Your task to perform on an android device: change the upload size in google photos Image 0: 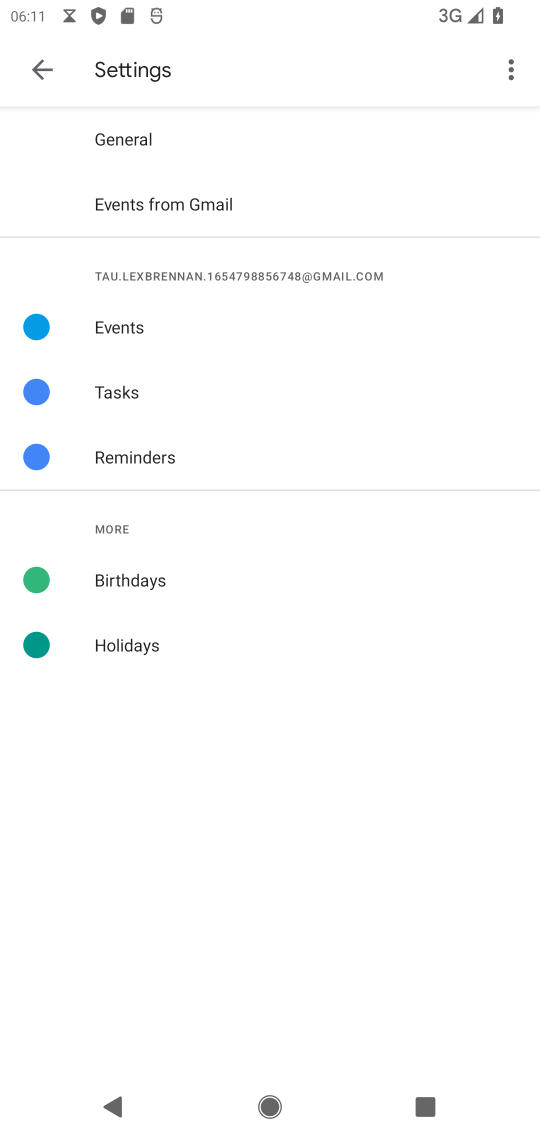
Step 0: press home button
Your task to perform on an android device: change the upload size in google photos Image 1: 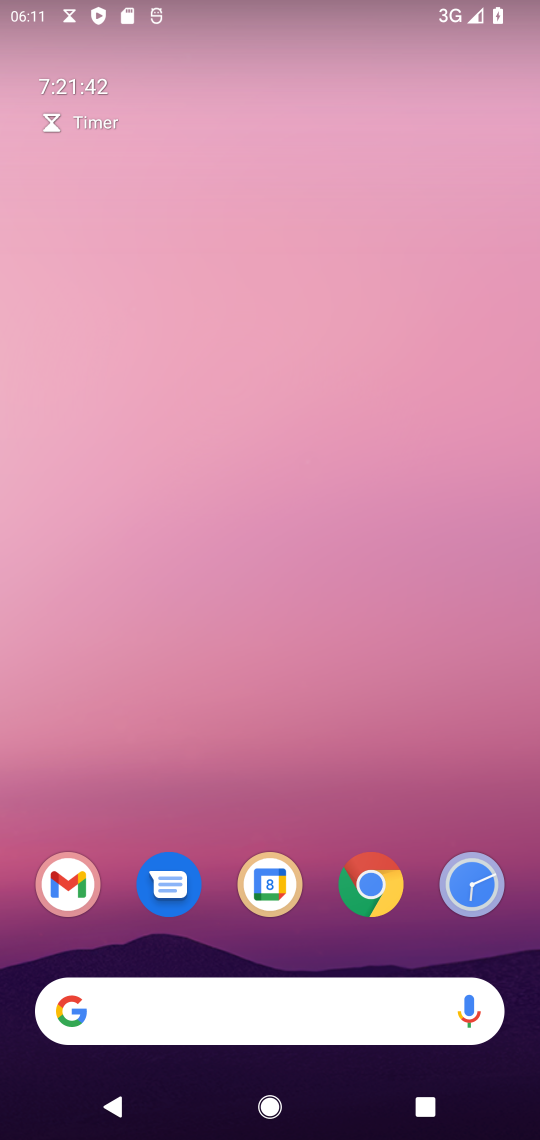
Step 1: drag from (328, 827) to (337, 82)
Your task to perform on an android device: change the upload size in google photos Image 2: 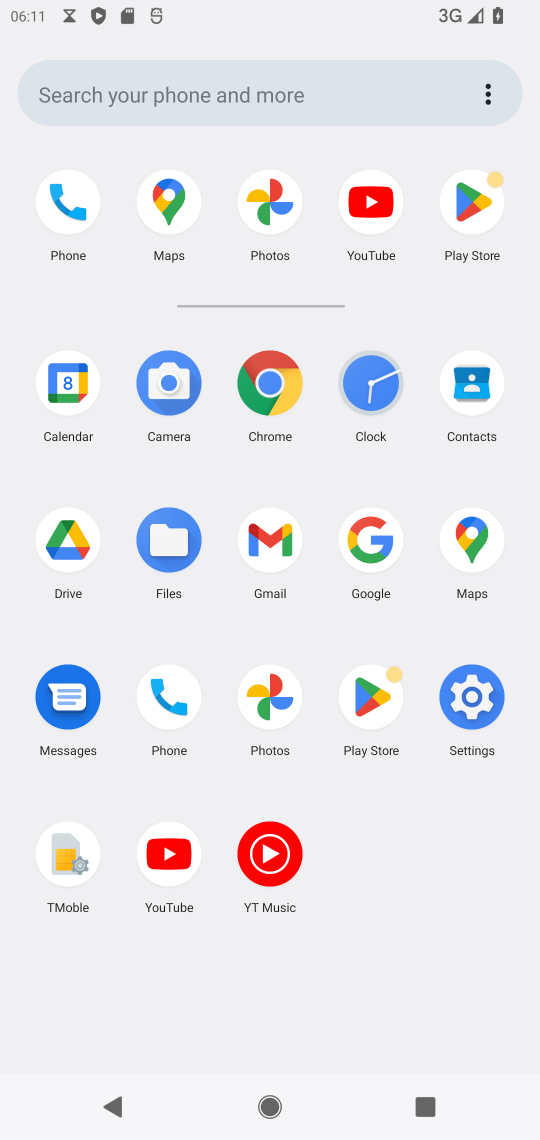
Step 2: click (261, 704)
Your task to perform on an android device: change the upload size in google photos Image 3: 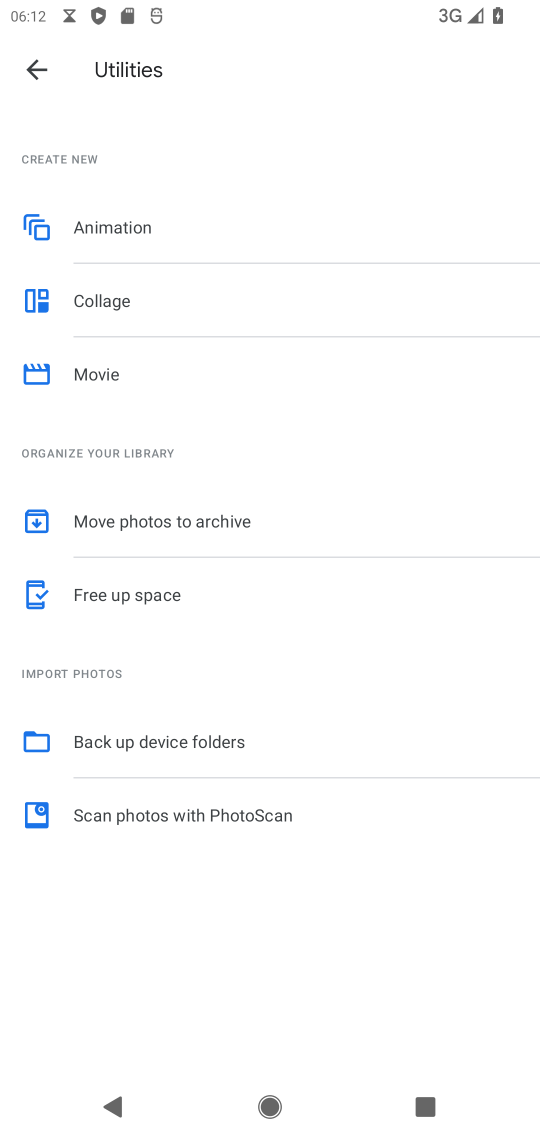
Step 3: click (30, 68)
Your task to perform on an android device: change the upload size in google photos Image 4: 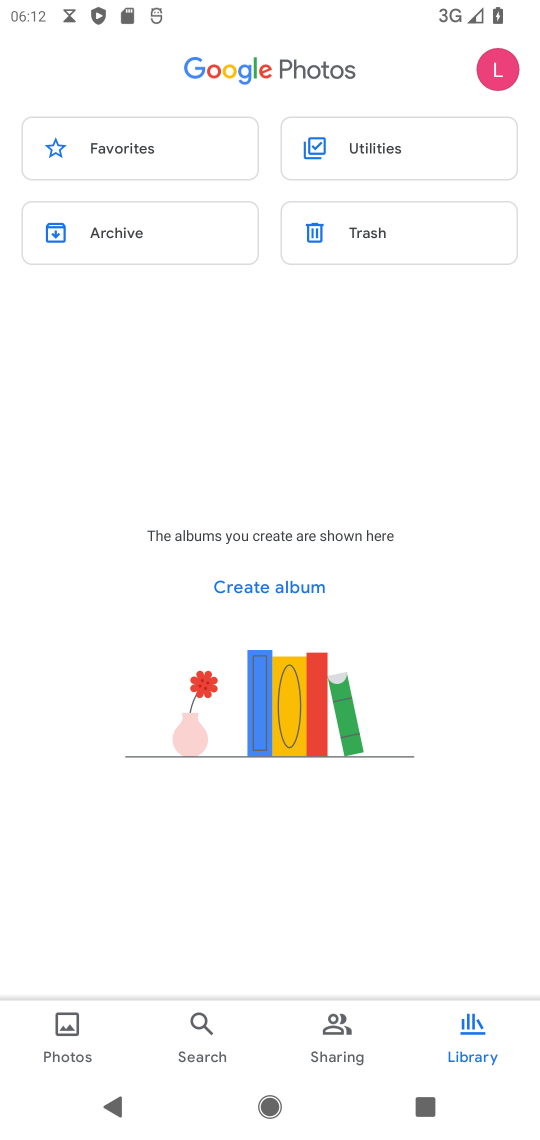
Step 4: click (502, 78)
Your task to perform on an android device: change the upload size in google photos Image 5: 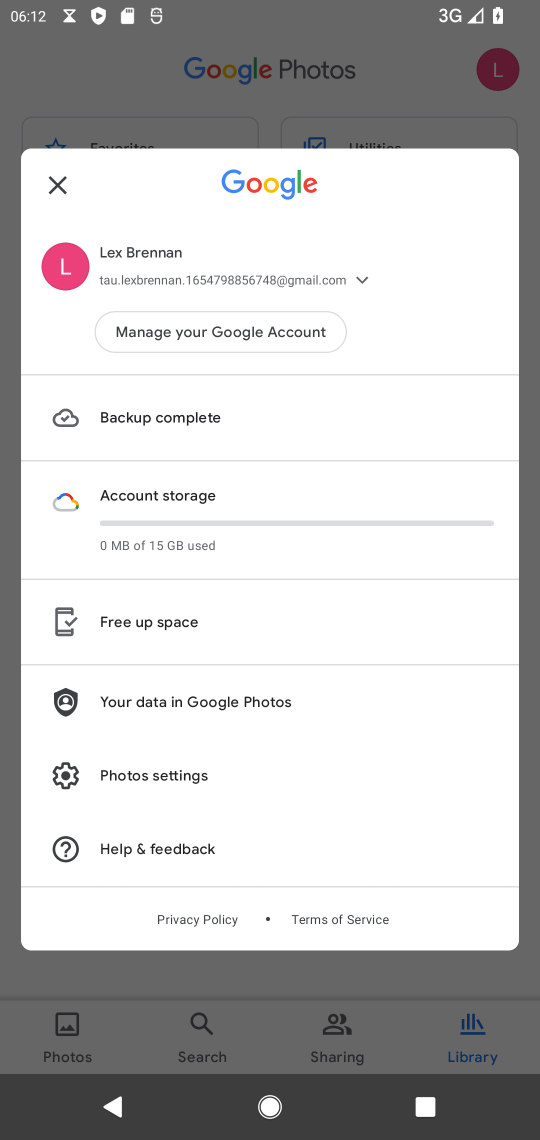
Step 5: click (208, 789)
Your task to perform on an android device: change the upload size in google photos Image 6: 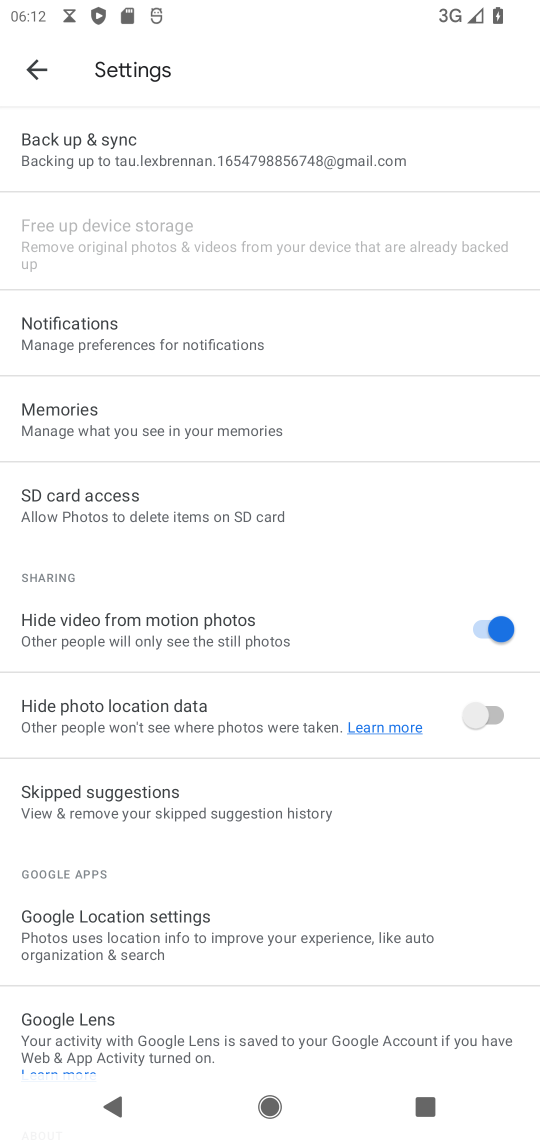
Step 6: click (279, 142)
Your task to perform on an android device: change the upload size in google photos Image 7: 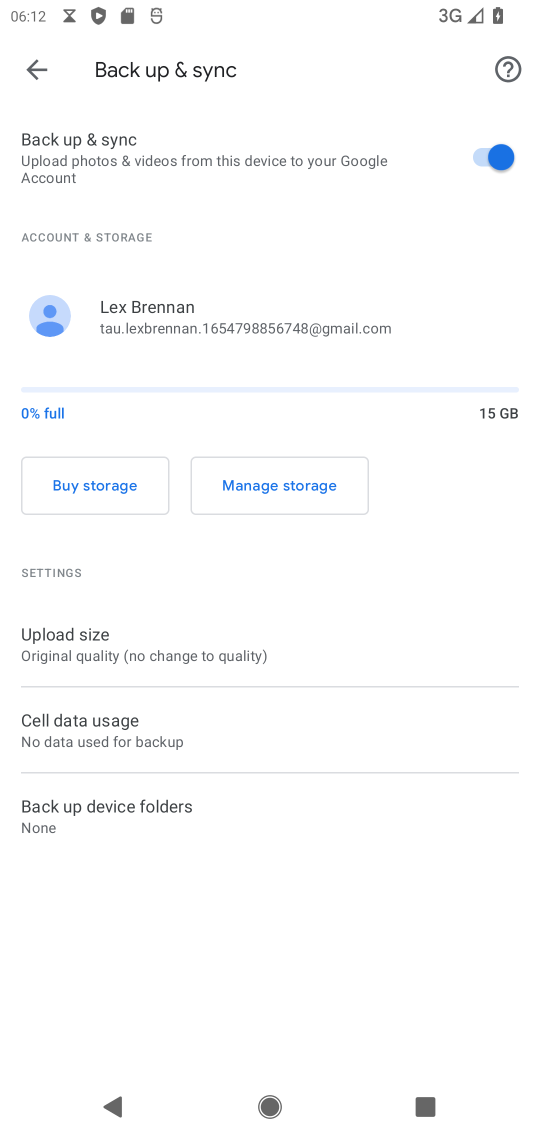
Step 7: task complete